Your task to perform on an android device: Open notification settings Image 0: 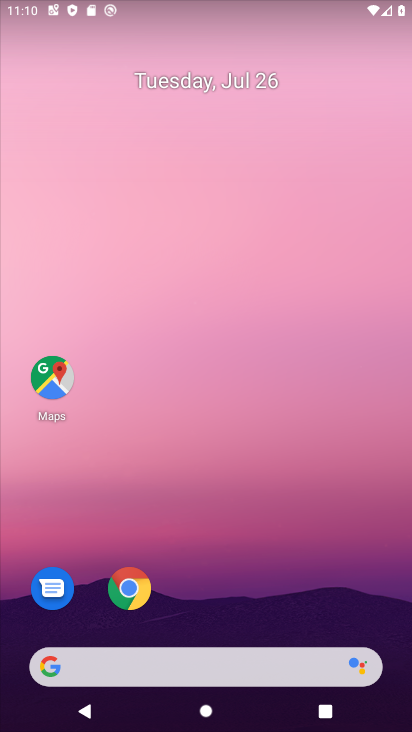
Step 0: drag from (327, 553) to (324, 354)
Your task to perform on an android device: Open notification settings Image 1: 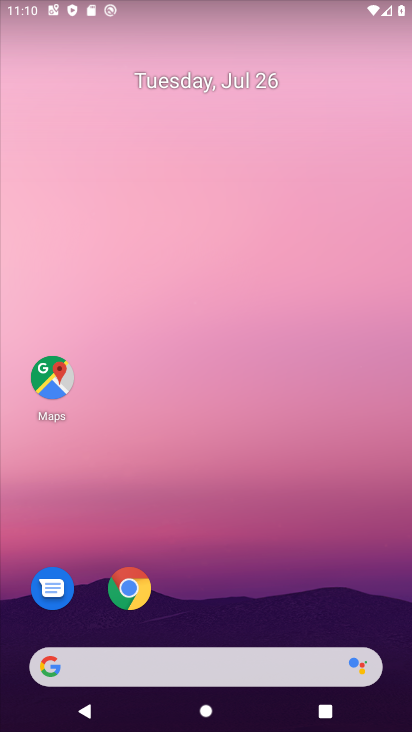
Step 1: drag from (323, 448) to (318, 86)
Your task to perform on an android device: Open notification settings Image 2: 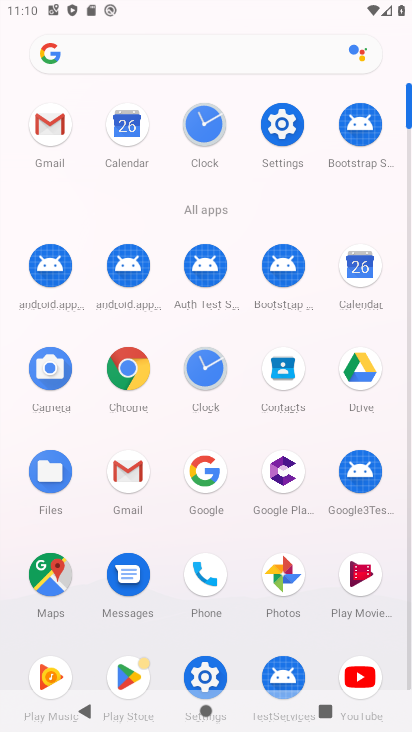
Step 2: click (278, 123)
Your task to perform on an android device: Open notification settings Image 3: 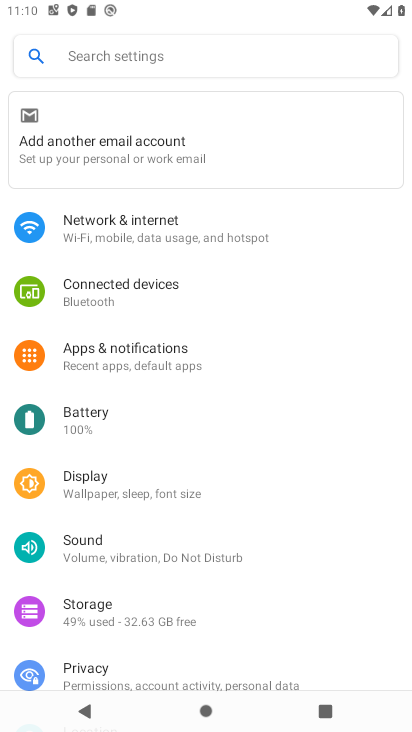
Step 3: click (137, 351)
Your task to perform on an android device: Open notification settings Image 4: 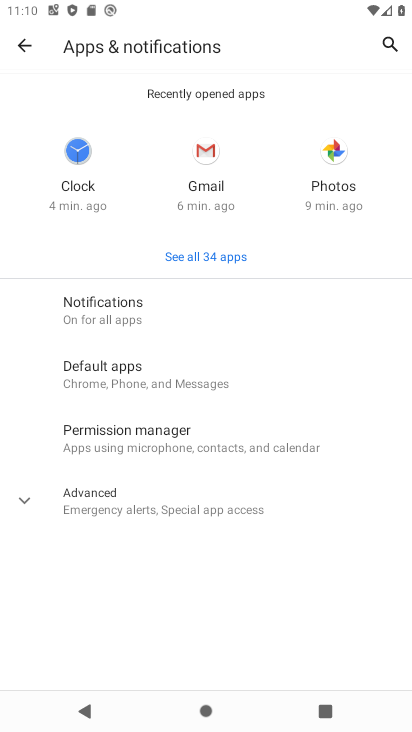
Step 4: task complete